Your task to perform on an android device: see tabs open on other devices in the chrome app Image 0: 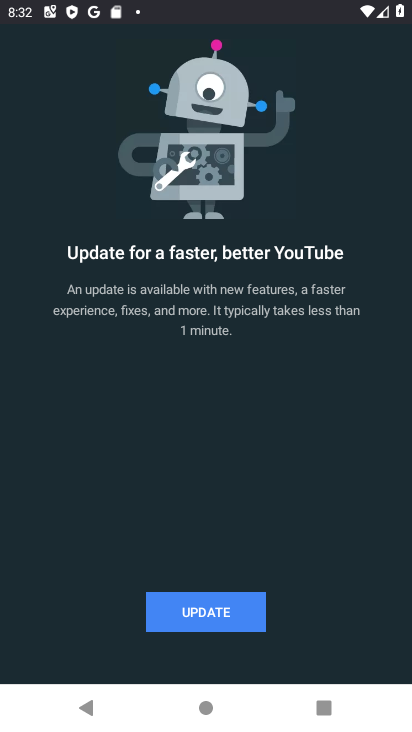
Step 0: press home button
Your task to perform on an android device: see tabs open on other devices in the chrome app Image 1: 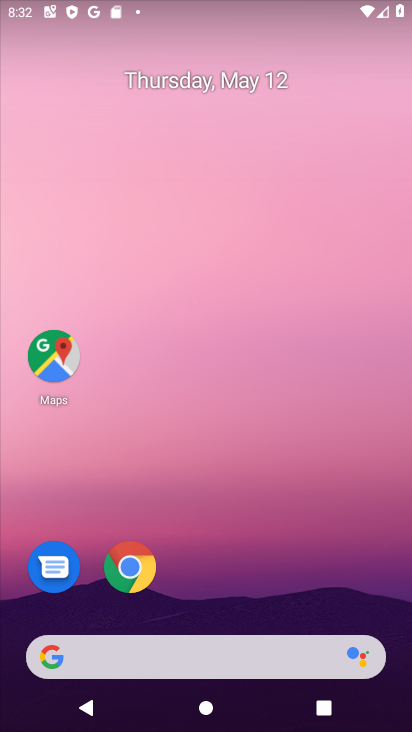
Step 1: drag from (226, 548) to (281, 198)
Your task to perform on an android device: see tabs open on other devices in the chrome app Image 2: 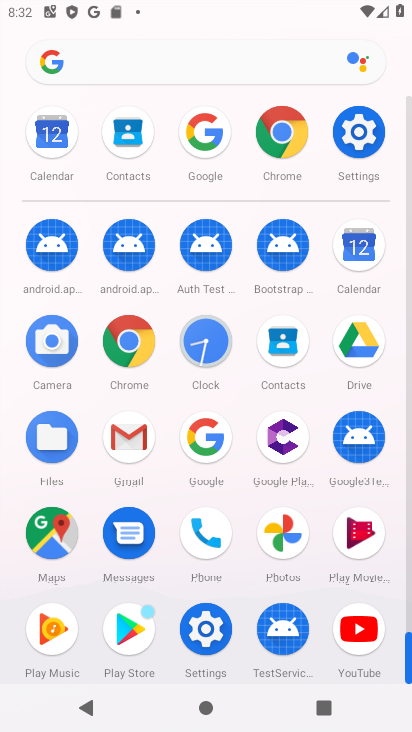
Step 2: click (288, 134)
Your task to perform on an android device: see tabs open on other devices in the chrome app Image 3: 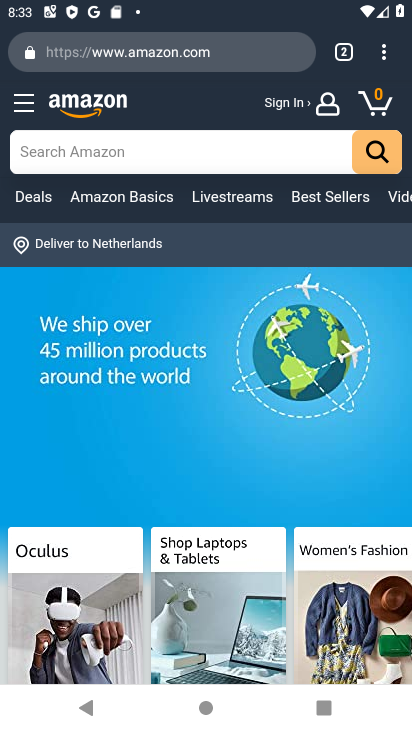
Step 3: task complete